Your task to perform on an android device: Open eBay Image 0: 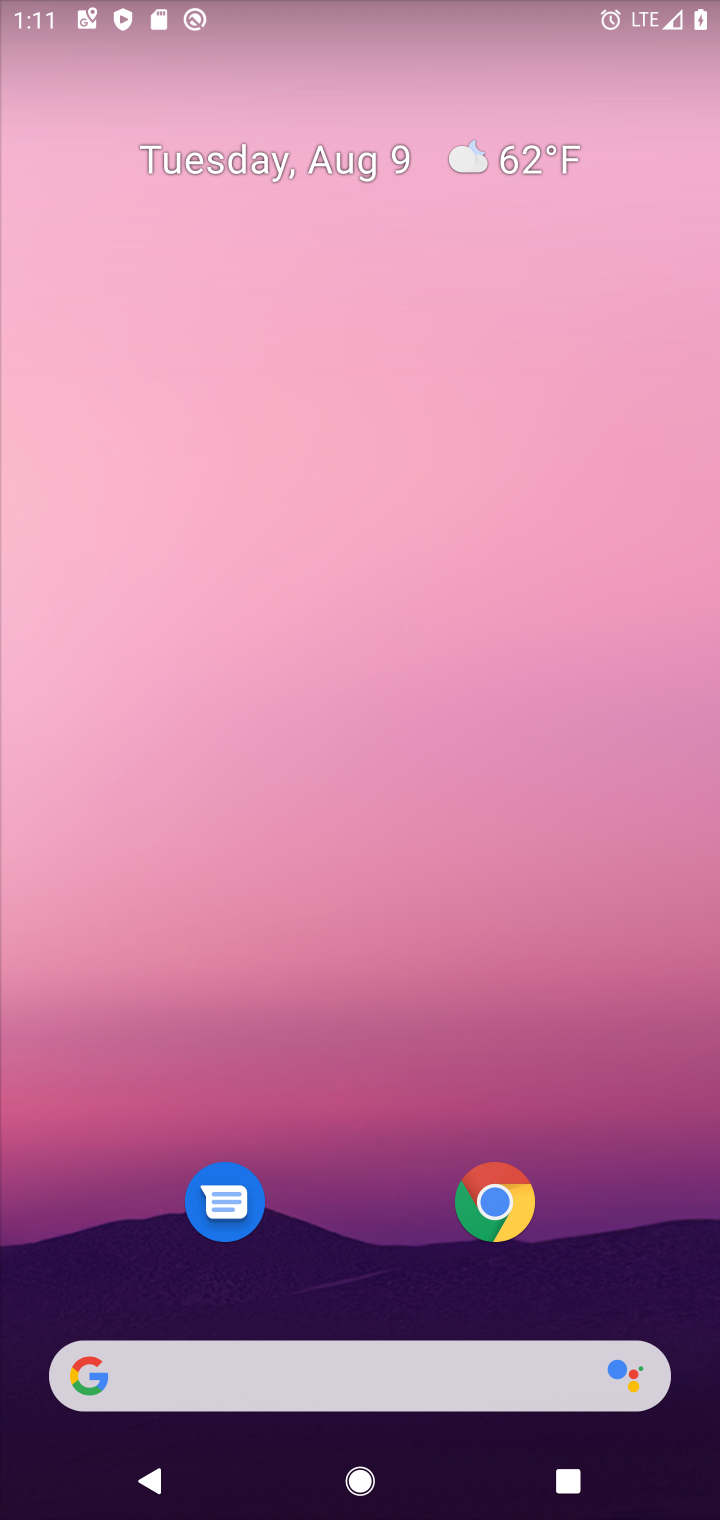
Step 0: click (483, 1202)
Your task to perform on an android device: Open eBay Image 1: 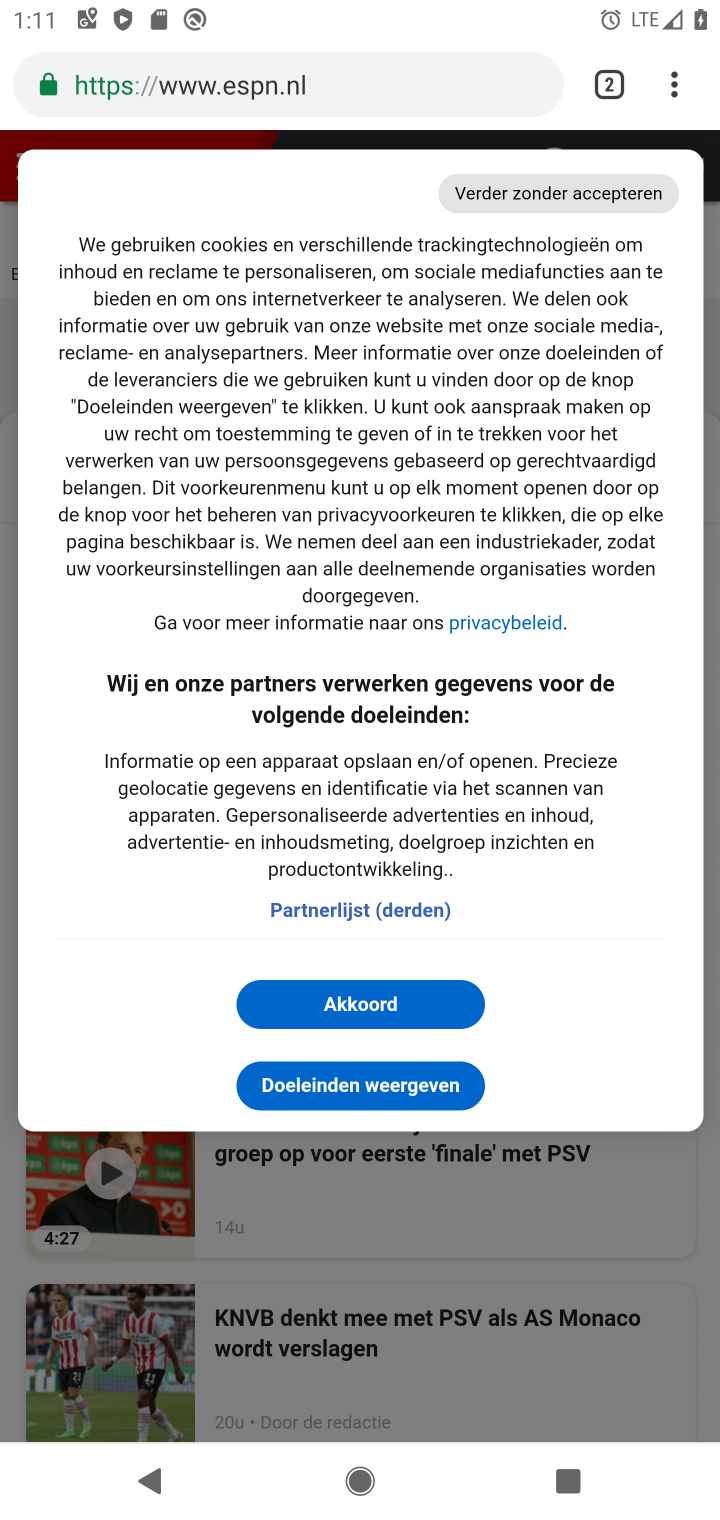
Step 1: click (287, 84)
Your task to perform on an android device: Open eBay Image 2: 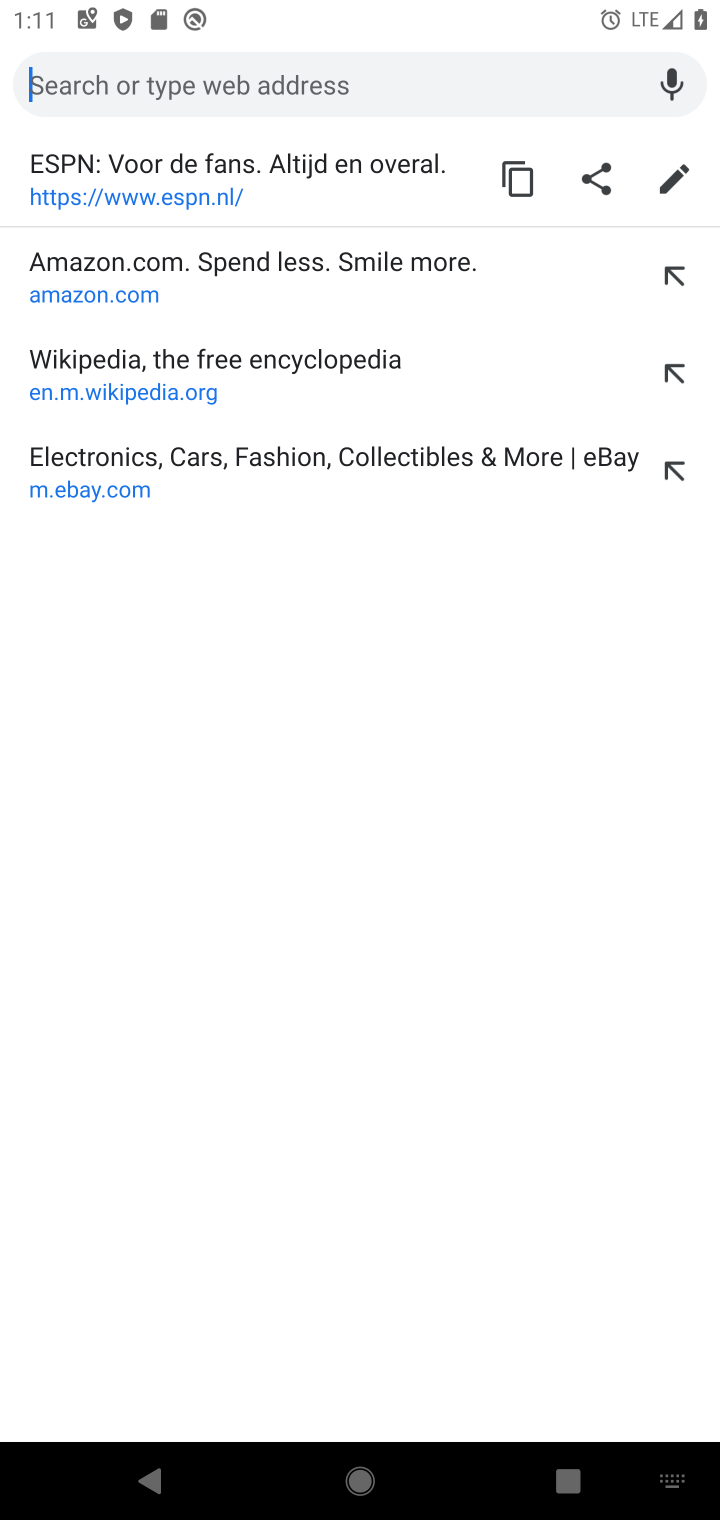
Step 2: click (118, 480)
Your task to perform on an android device: Open eBay Image 3: 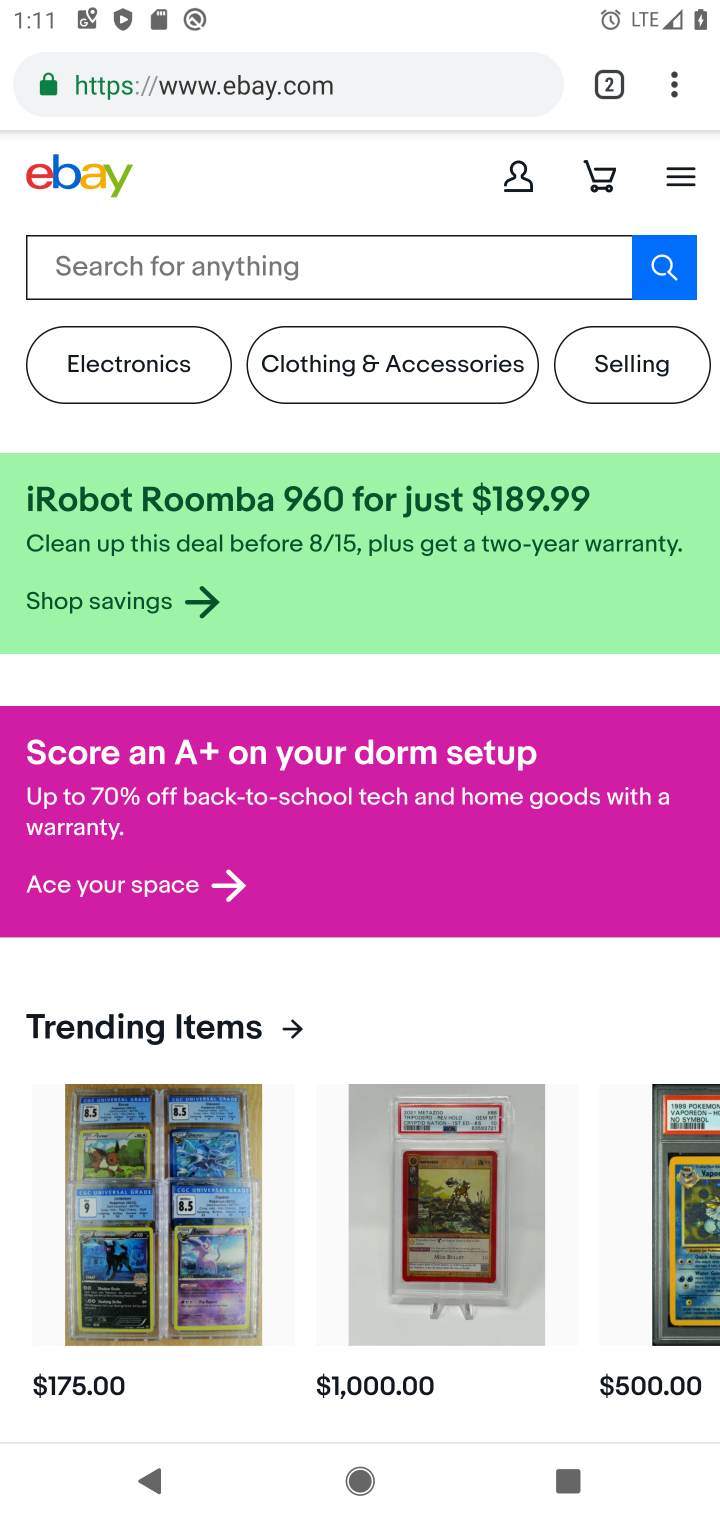
Step 3: task complete